Your task to perform on an android device: What is the news today? Image 0: 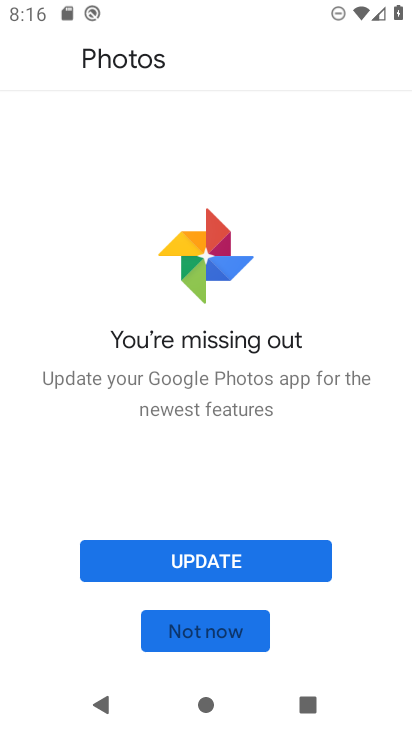
Step 0: press home button
Your task to perform on an android device: What is the news today? Image 1: 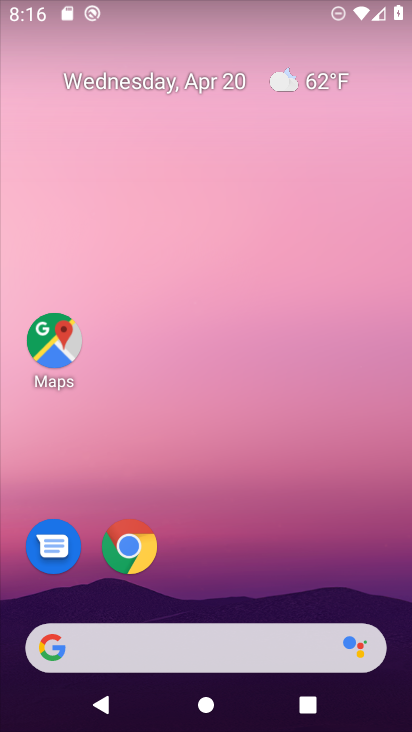
Step 1: click (45, 646)
Your task to perform on an android device: What is the news today? Image 2: 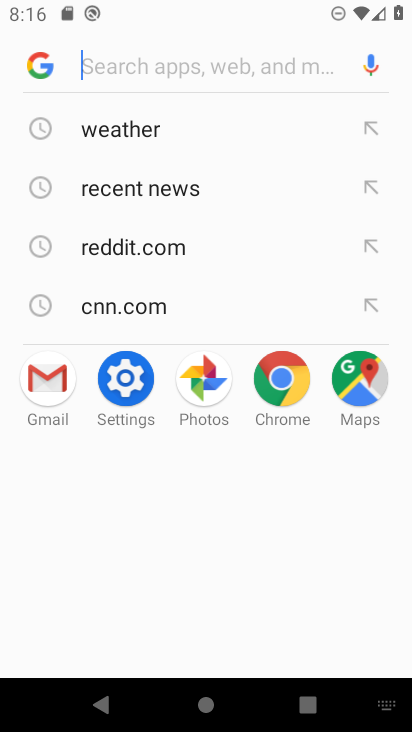
Step 2: click (39, 64)
Your task to perform on an android device: What is the news today? Image 3: 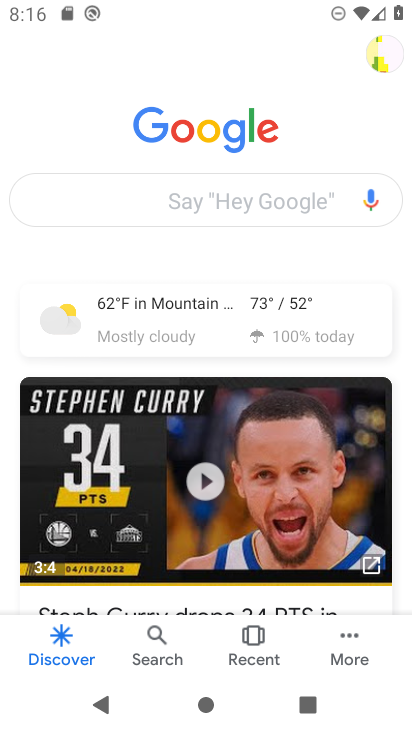
Step 3: task complete